Your task to perform on an android device: Search for the best-rated coffee table on Crate & Barrel Image 0: 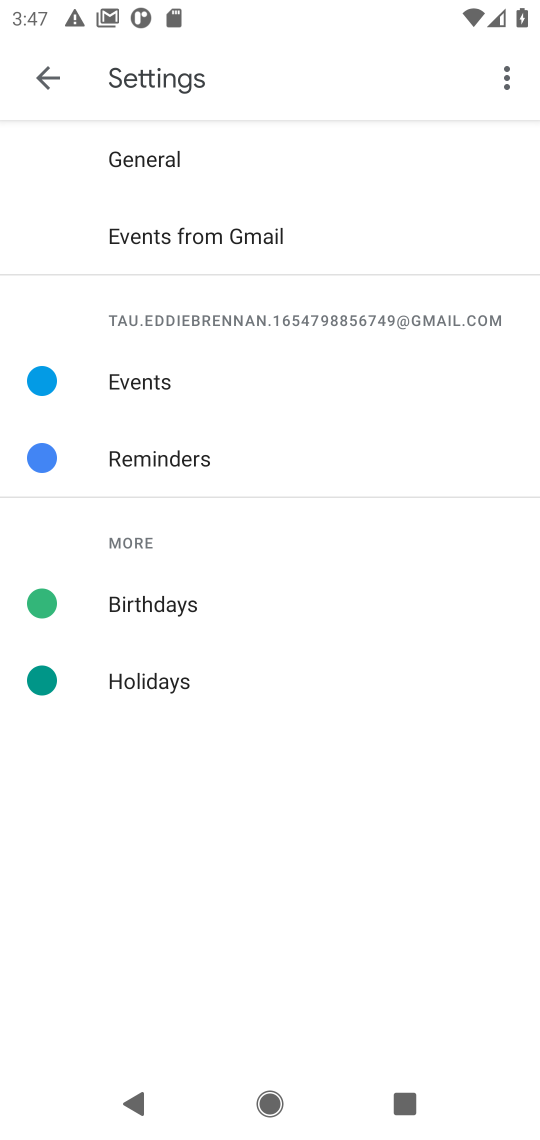
Step 0: press home button
Your task to perform on an android device: Search for the best-rated coffee table on Crate & Barrel Image 1: 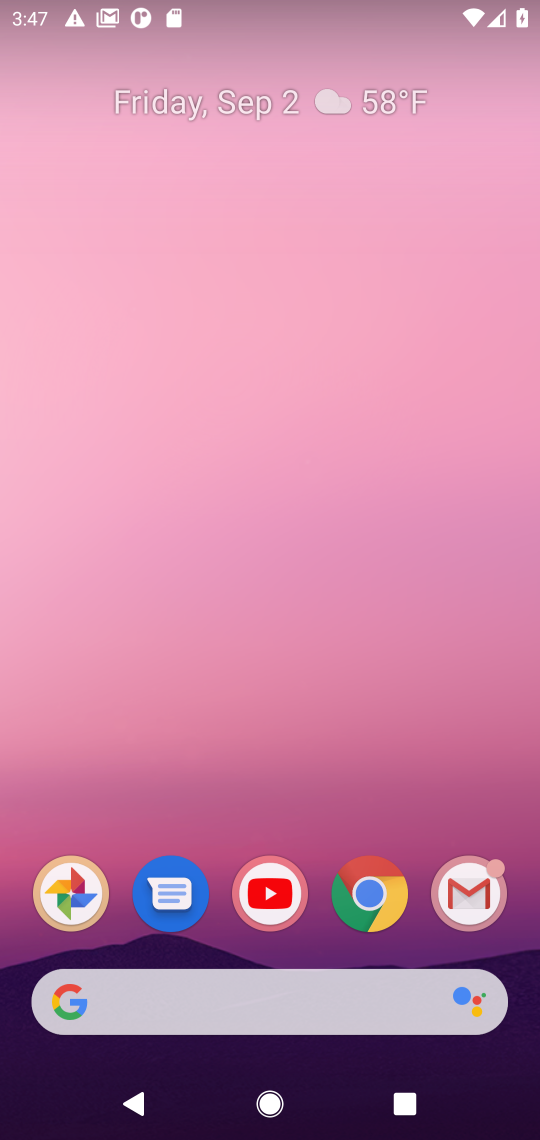
Step 1: press home button
Your task to perform on an android device: Search for the best-rated coffee table on Crate & Barrel Image 2: 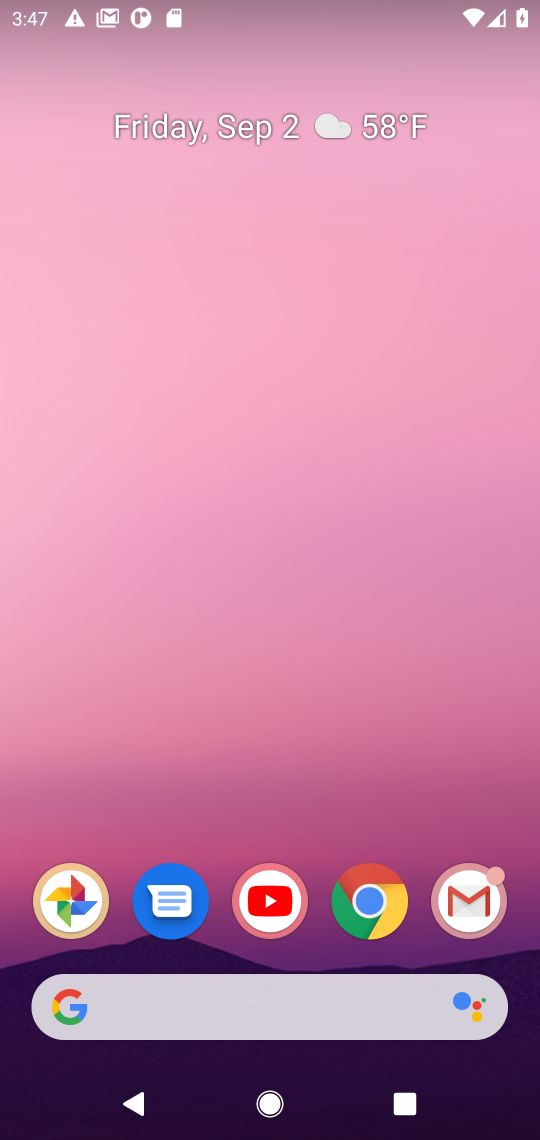
Step 2: drag from (407, 329) to (458, 2)
Your task to perform on an android device: Search for the best-rated coffee table on Crate & Barrel Image 3: 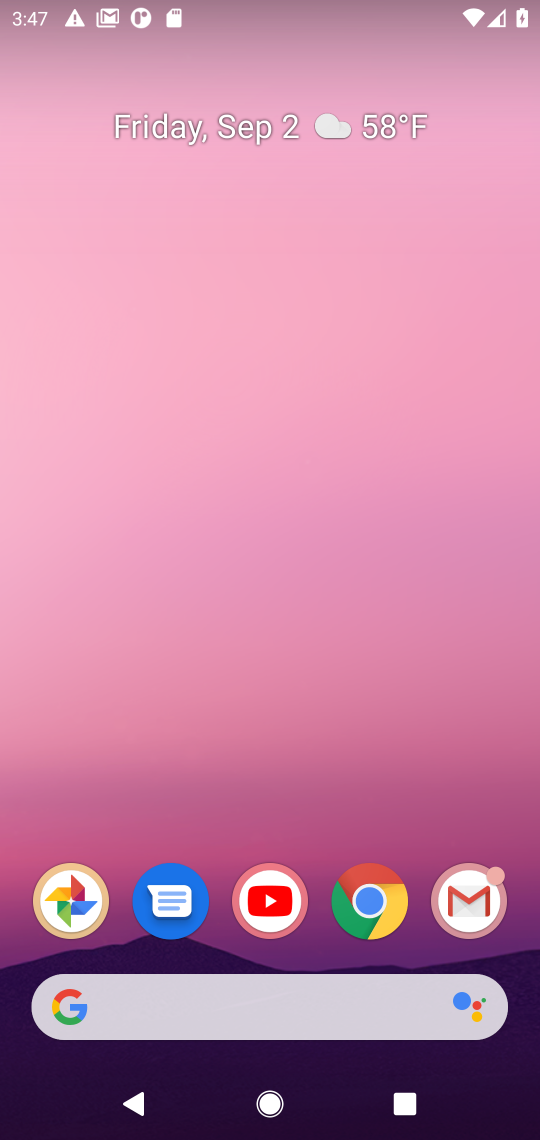
Step 3: drag from (398, 829) to (529, 346)
Your task to perform on an android device: Search for the best-rated coffee table on Crate & Barrel Image 4: 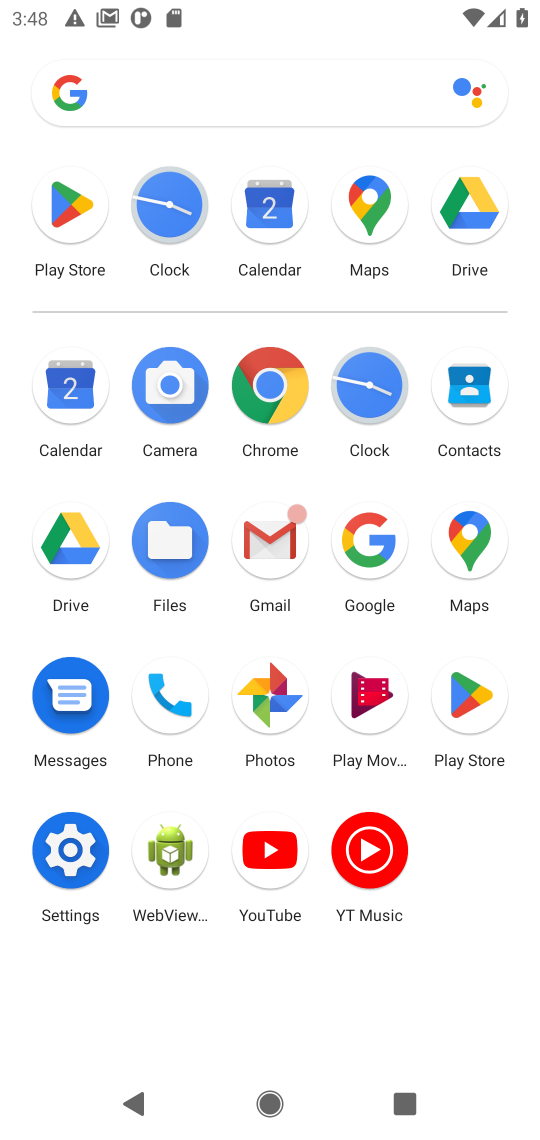
Step 4: click (293, 393)
Your task to perform on an android device: Search for the best-rated coffee table on Crate & Barrel Image 5: 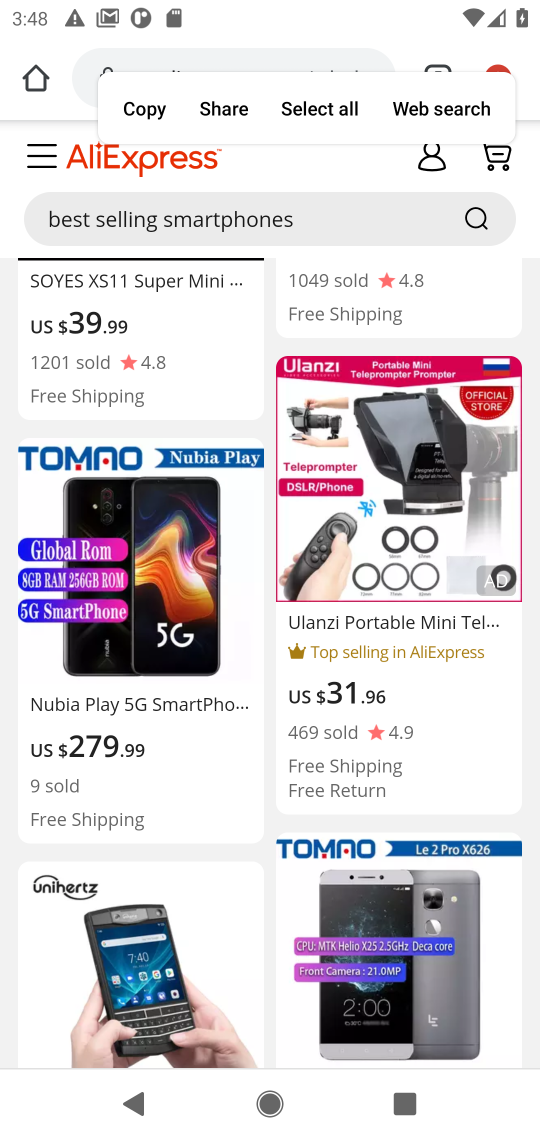
Step 5: click (364, 11)
Your task to perform on an android device: Search for the best-rated coffee table on Crate & Barrel Image 6: 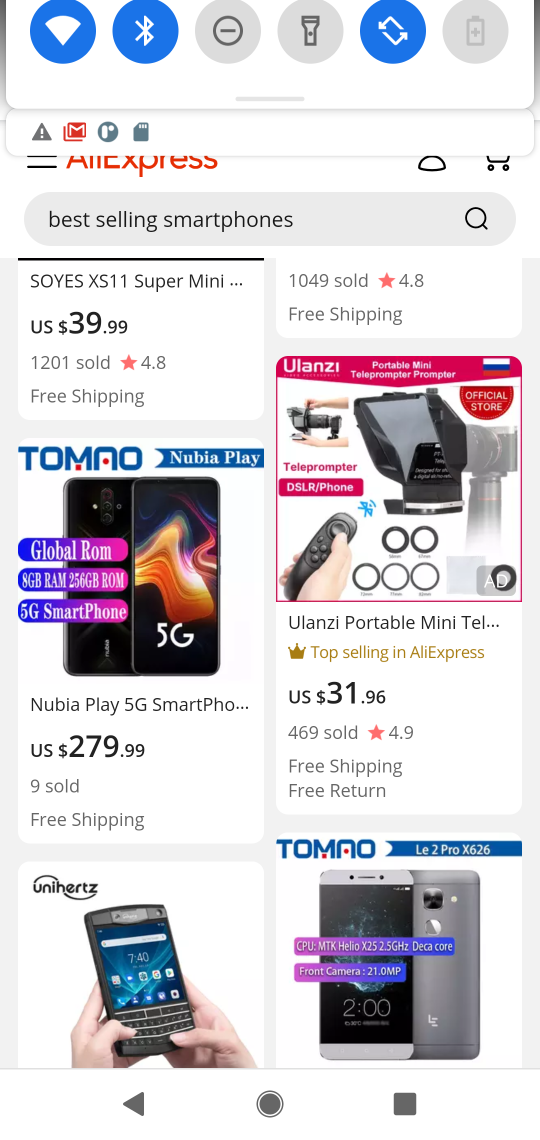
Step 6: click (340, 73)
Your task to perform on an android device: Search for the best-rated coffee table on Crate & Barrel Image 7: 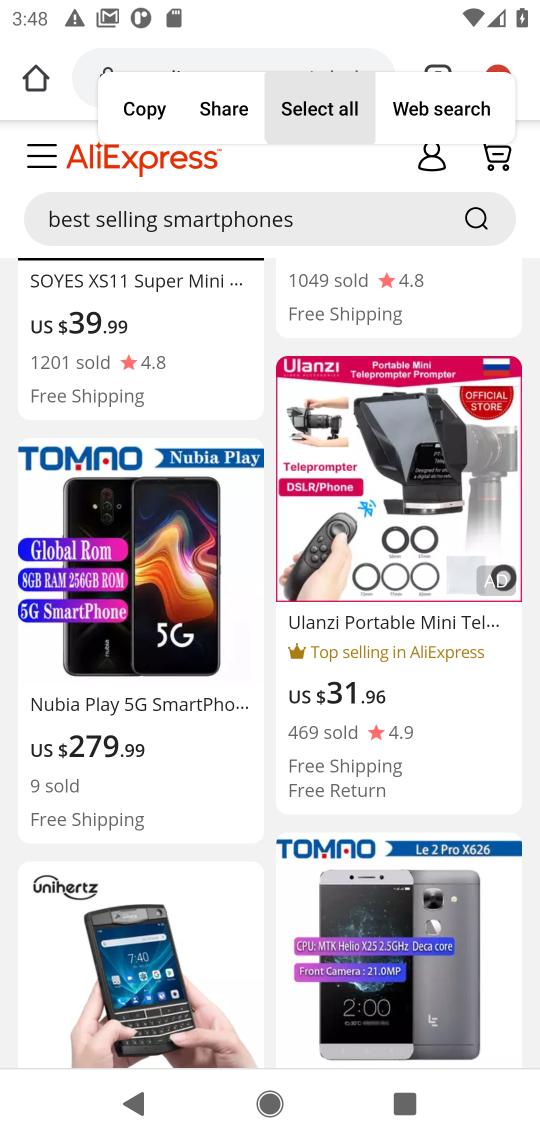
Step 7: click (358, 43)
Your task to perform on an android device: Search for the best-rated coffee table on Crate & Barrel Image 8: 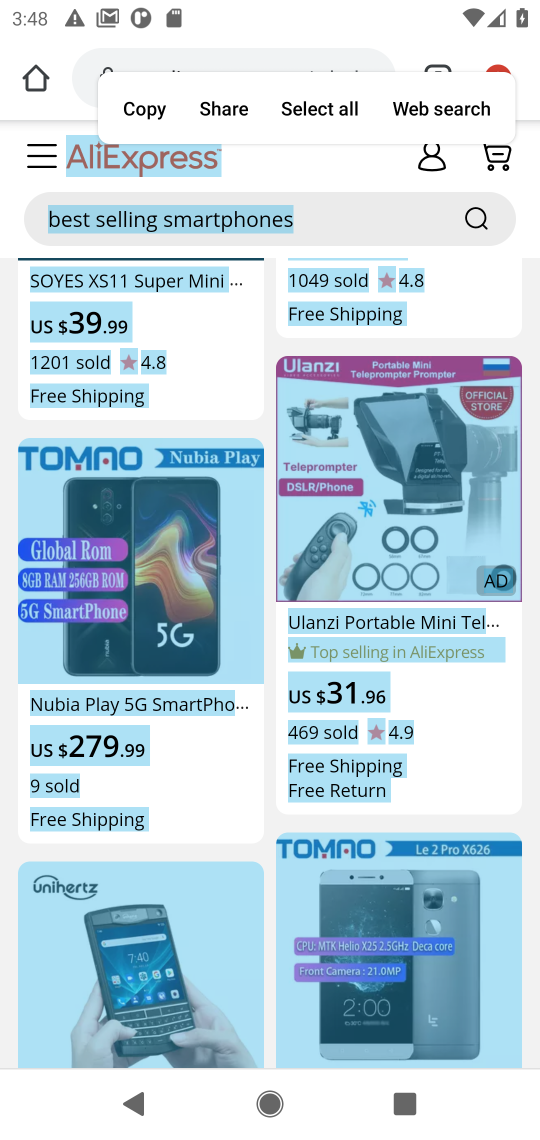
Step 8: click (341, 34)
Your task to perform on an android device: Search for the best-rated coffee table on Crate & Barrel Image 9: 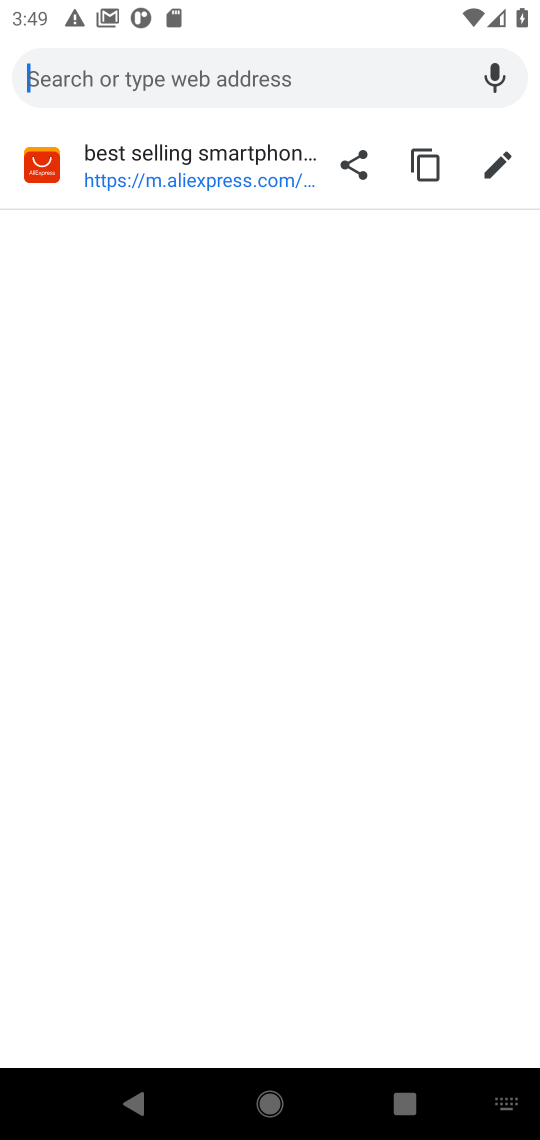
Step 9: type "best--rated coffee table on Crate & Barrel"
Your task to perform on an android device: Search for the best-rated coffee table on Crate & Barrel Image 10: 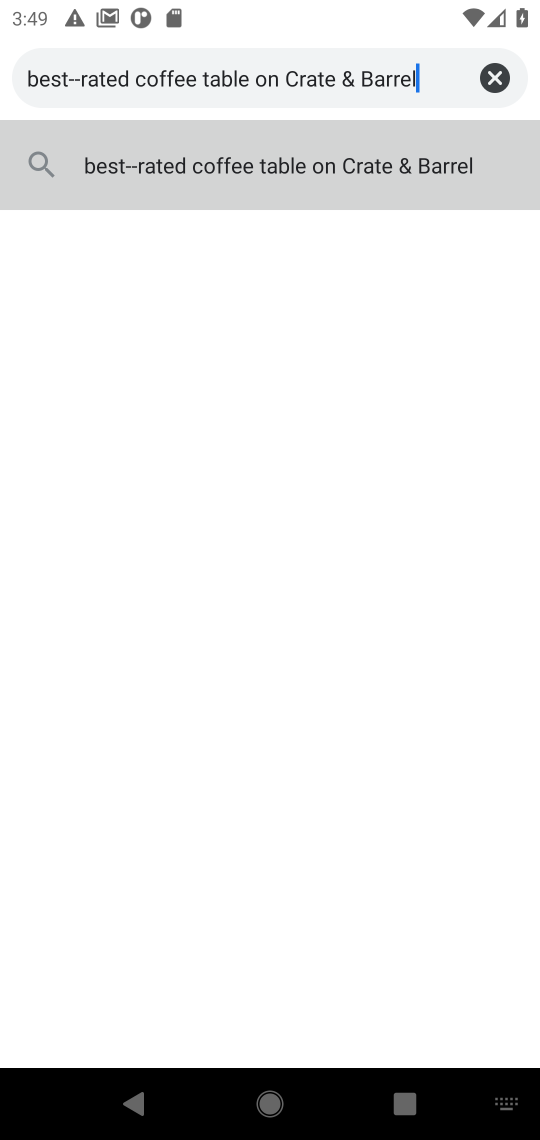
Step 10: press enter
Your task to perform on an android device: Search for the best-rated coffee table on Crate & Barrel Image 11: 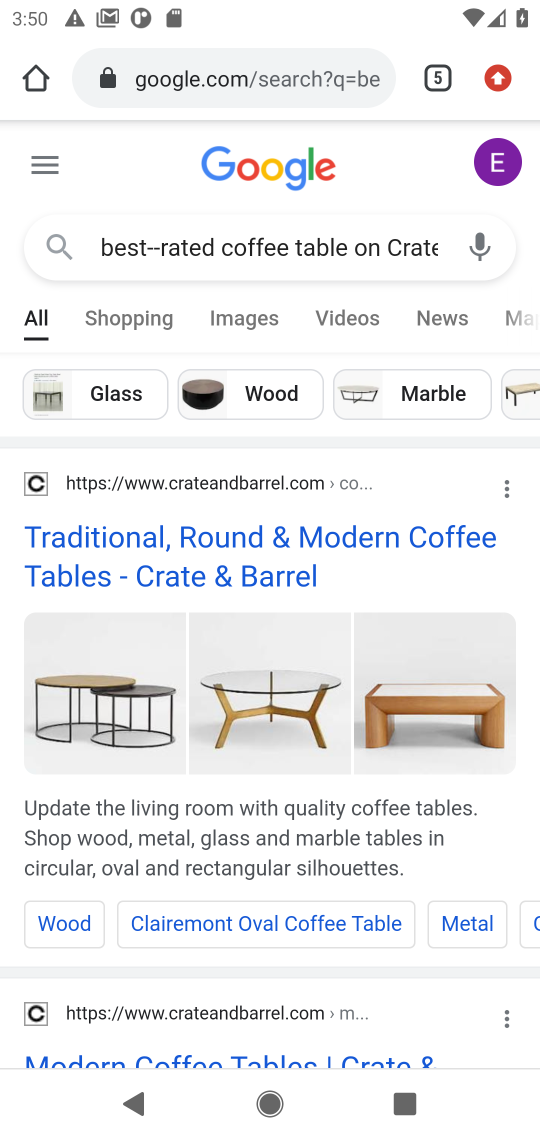
Step 11: click (239, 541)
Your task to perform on an android device: Search for the best-rated coffee table on Crate & Barrel Image 12: 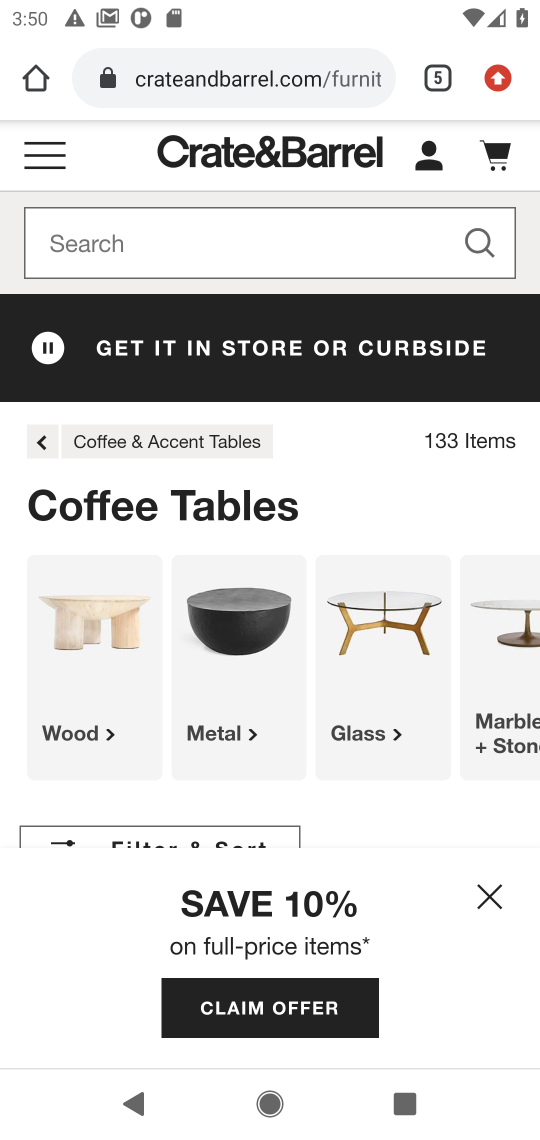
Step 12: task complete